Your task to perform on an android device: toggle translation in the chrome app Image 0: 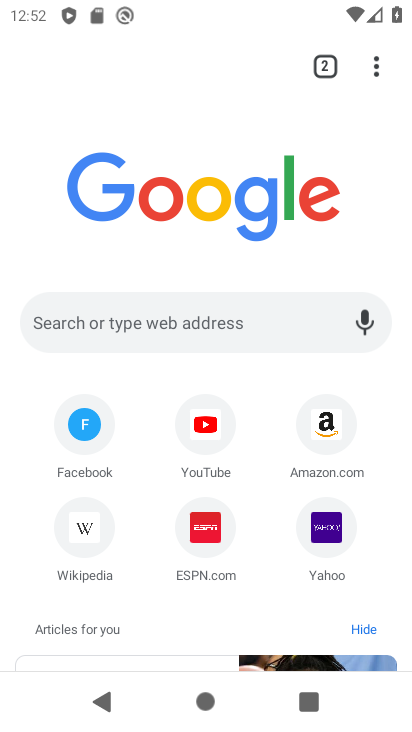
Step 0: press home button
Your task to perform on an android device: toggle translation in the chrome app Image 1: 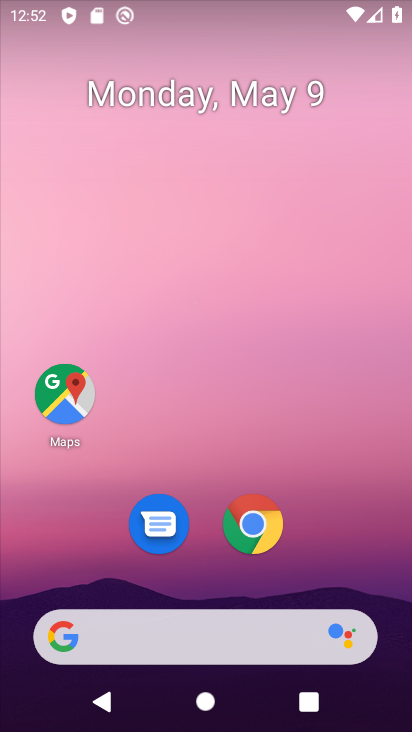
Step 1: drag from (205, 493) to (238, 82)
Your task to perform on an android device: toggle translation in the chrome app Image 2: 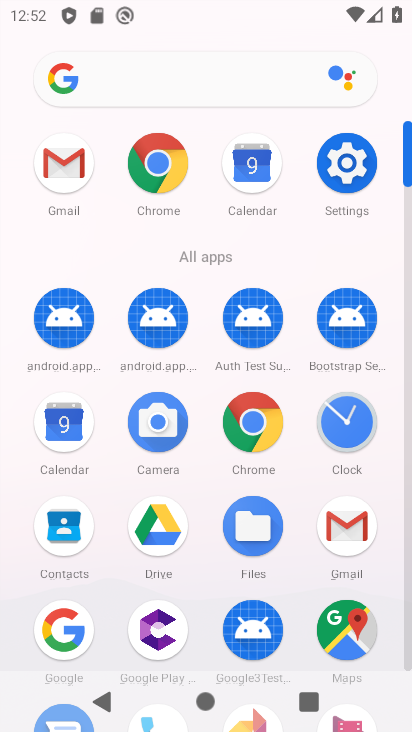
Step 2: click (161, 165)
Your task to perform on an android device: toggle translation in the chrome app Image 3: 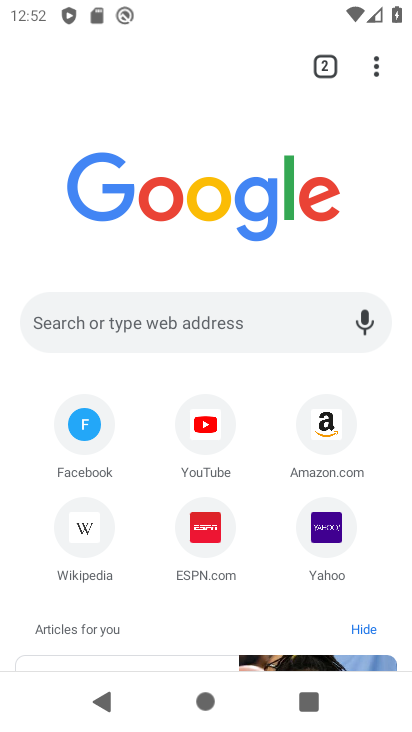
Step 3: click (378, 71)
Your task to perform on an android device: toggle translation in the chrome app Image 4: 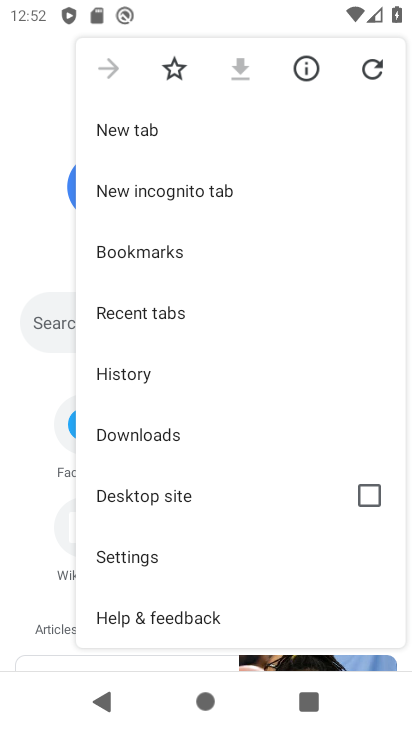
Step 4: drag from (231, 465) to (272, 264)
Your task to perform on an android device: toggle translation in the chrome app Image 5: 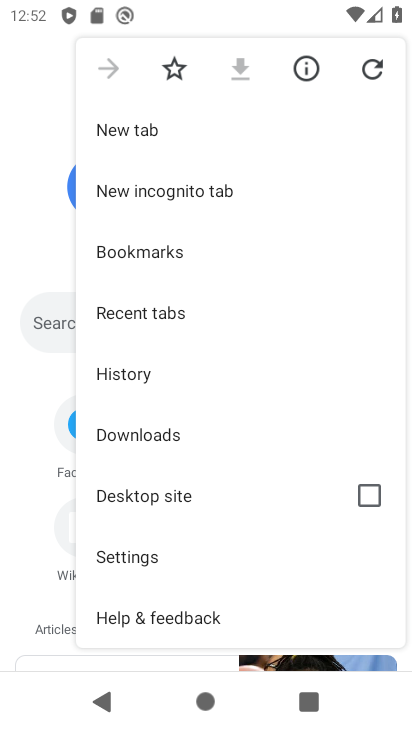
Step 5: click (134, 546)
Your task to perform on an android device: toggle translation in the chrome app Image 6: 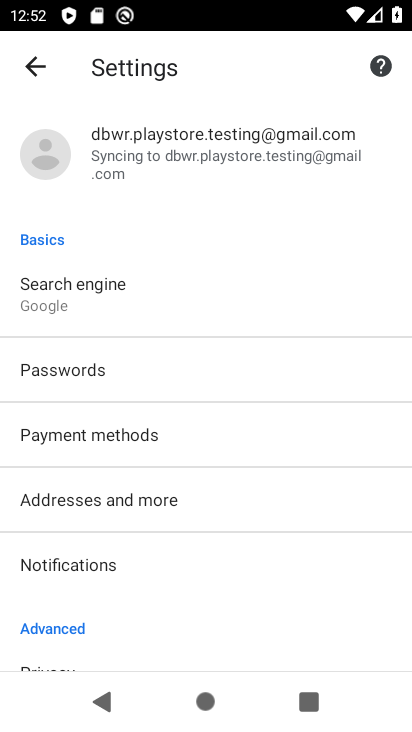
Step 6: drag from (171, 584) to (208, 231)
Your task to perform on an android device: toggle translation in the chrome app Image 7: 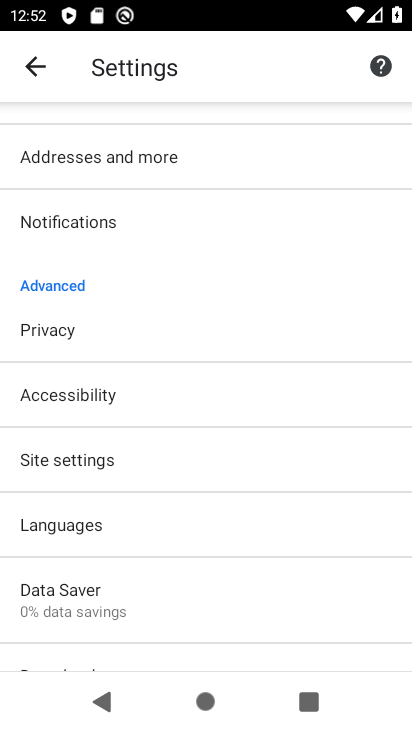
Step 7: click (143, 526)
Your task to perform on an android device: toggle translation in the chrome app Image 8: 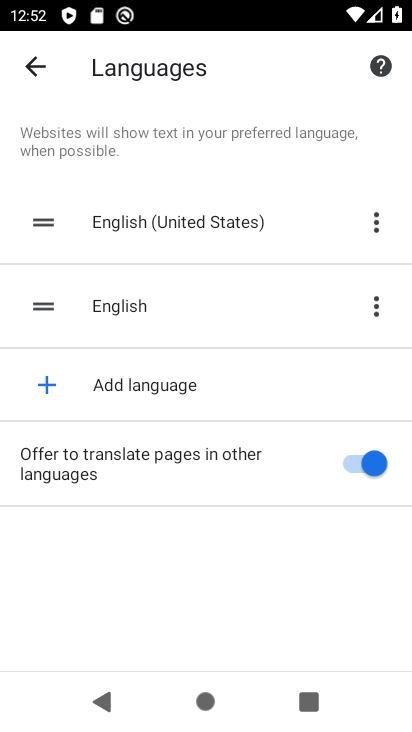
Step 8: click (354, 463)
Your task to perform on an android device: toggle translation in the chrome app Image 9: 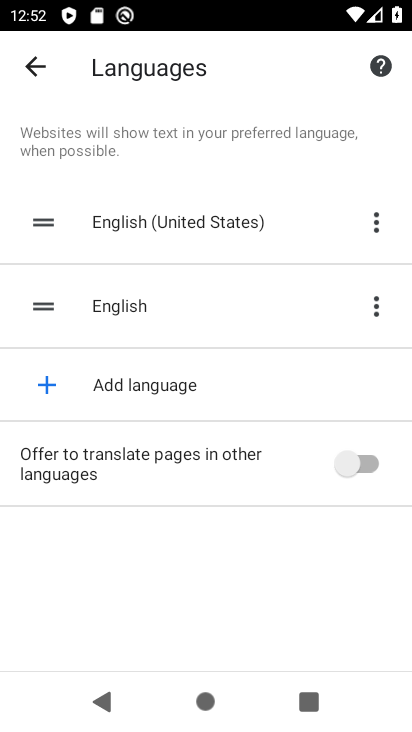
Step 9: task complete